Your task to perform on an android device: uninstall "PUBG MOBILE" Image 0: 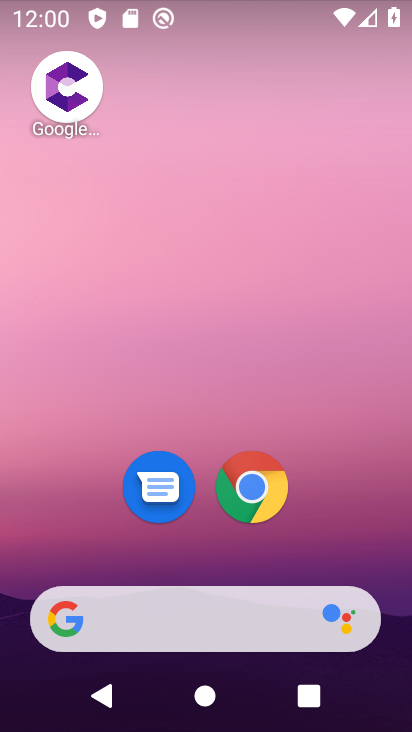
Step 0: drag from (221, 601) to (211, 20)
Your task to perform on an android device: uninstall "PUBG MOBILE" Image 1: 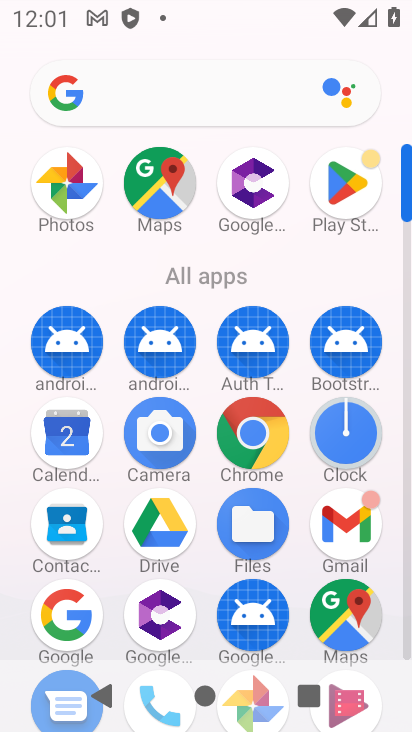
Step 1: click (348, 199)
Your task to perform on an android device: uninstall "PUBG MOBILE" Image 2: 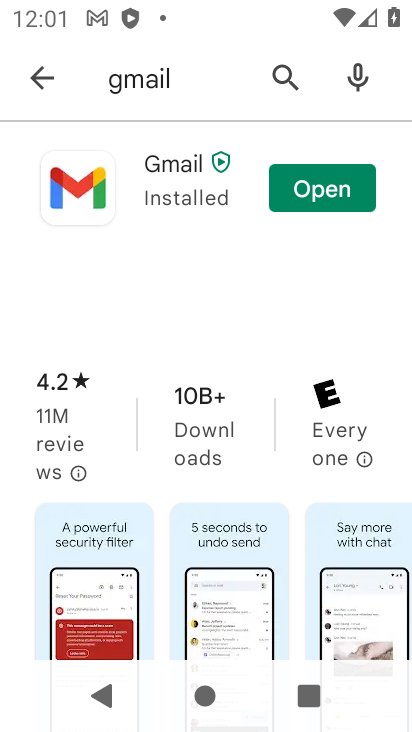
Step 2: click (44, 88)
Your task to perform on an android device: uninstall "PUBG MOBILE" Image 3: 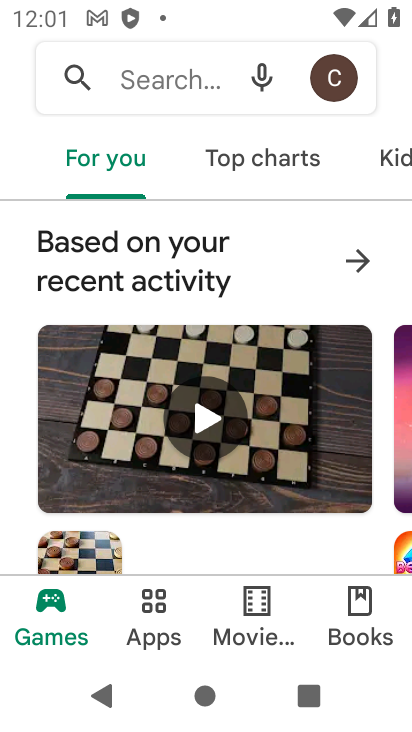
Step 3: click (124, 89)
Your task to perform on an android device: uninstall "PUBG MOBILE" Image 4: 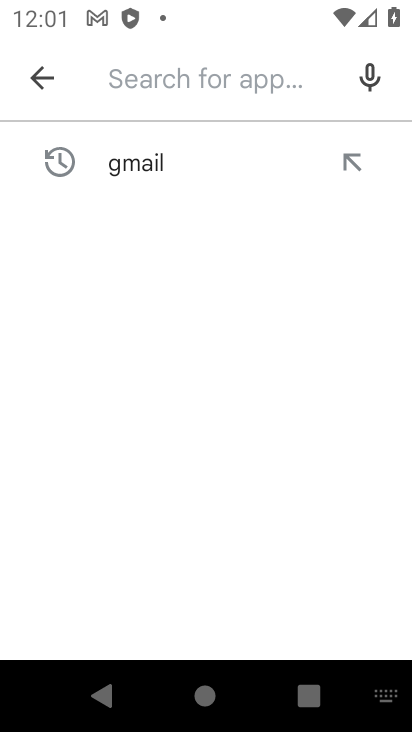
Step 4: type "PUBG MOBILE"
Your task to perform on an android device: uninstall "PUBG MOBILE" Image 5: 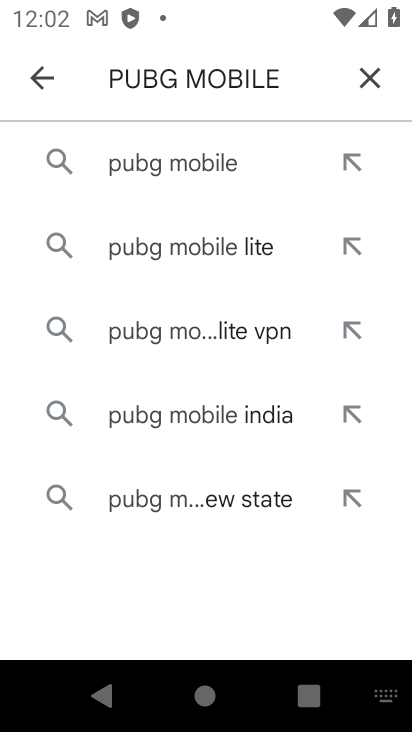
Step 5: click (207, 155)
Your task to perform on an android device: uninstall "PUBG MOBILE" Image 6: 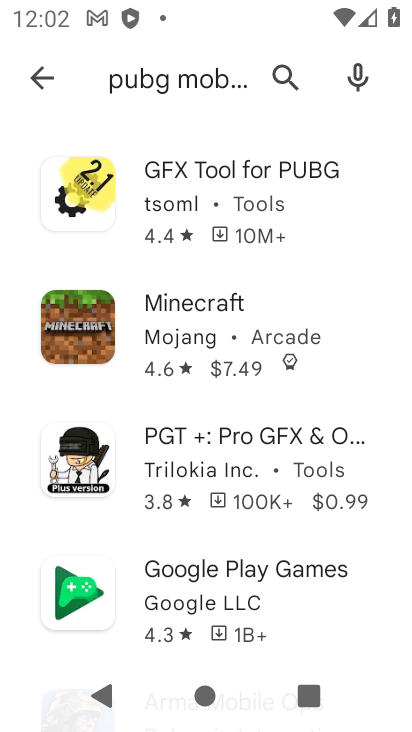
Step 6: task complete